Your task to perform on an android device: Set the phone to "Do not disturb". Image 0: 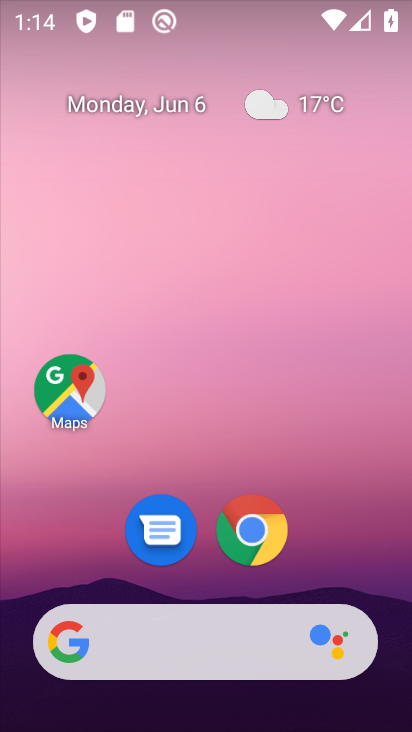
Step 0: drag from (341, 546) to (256, 138)
Your task to perform on an android device: Set the phone to "Do not disturb". Image 1: 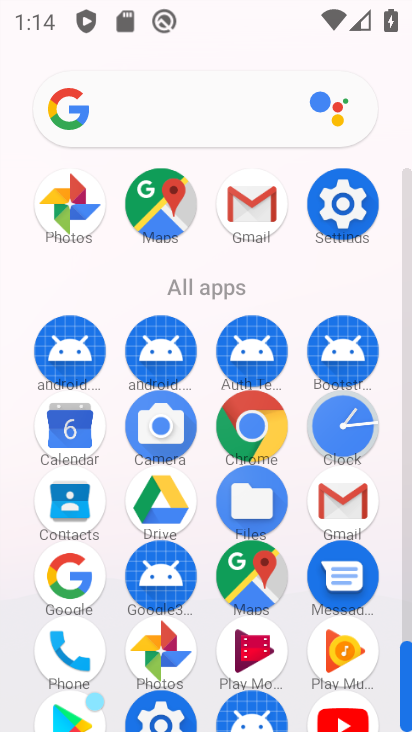
Step 1: click (344, 204)
Your task to perform on an android device: Set the phone to "Do not disturb". Image 2: 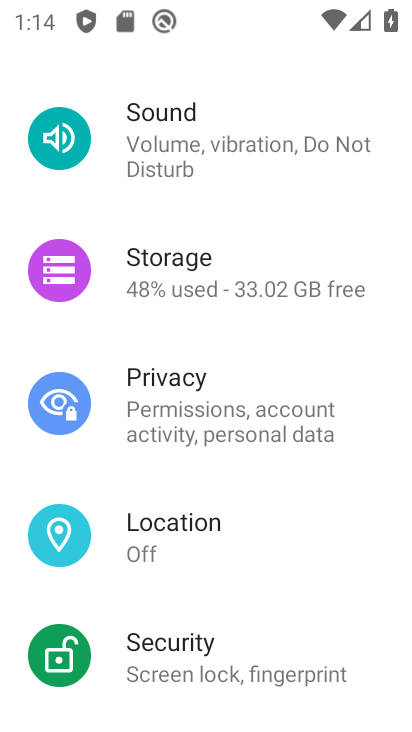
Step 2: click (279, 151)
Your task to perform on an android device: Set the phone to "Do not disturb". Image 3: 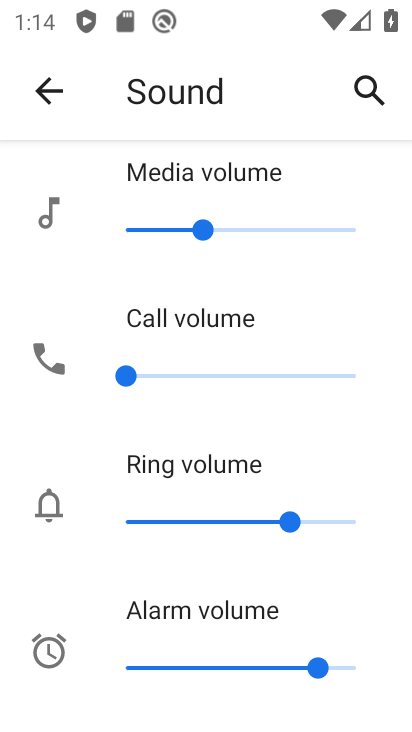
Step 3: drag from (188, 560) to (202, 372)
Your task to perform on an android device: Set the phone to "Do not disturb". Image 4: 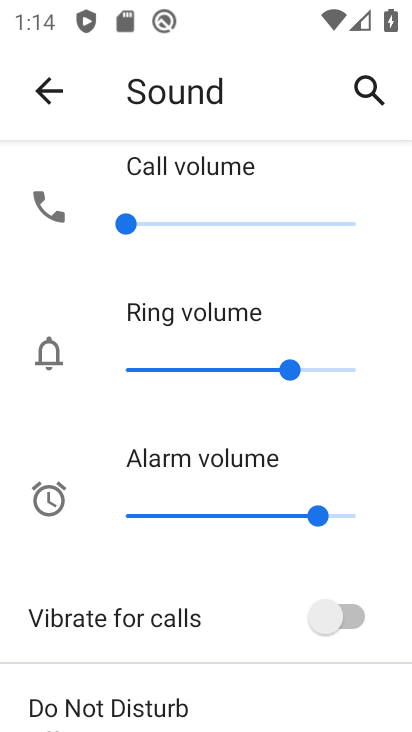
Step 4: drag from (195, 556) to (202, 404)
Your task to perform on an android device: Set the phone to "Do not disturb". Image 5: 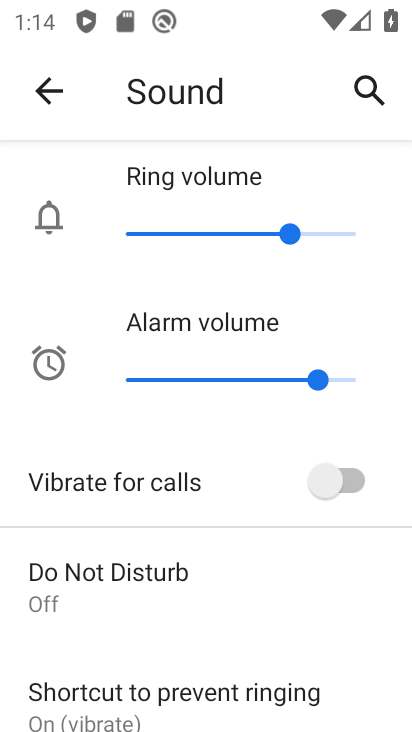
Step 5: drag from (227, 658) to (253, 531)
Your task to perform on an android device: Set the phone to "Do not disturb". Image 6: 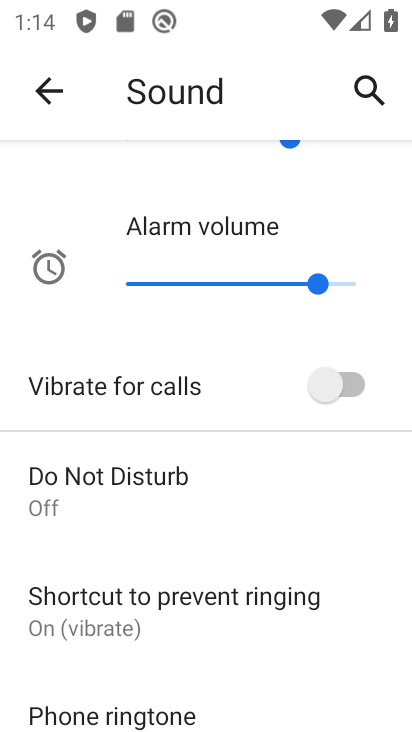
Step 6: click (197, 488)
Your task to perform on an android device: Set the phone to "Do not disturb". Image 7: 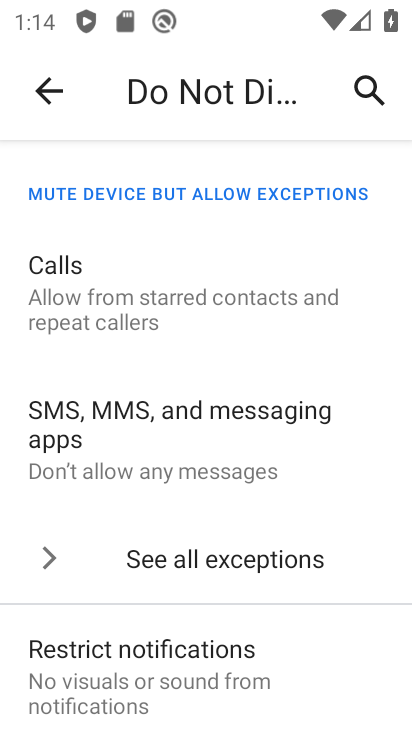
Step 7: drag from (199, 519) to (135, 284)
Your task to perform on an android device: Set the phone to "Do not disturb". Image 8: 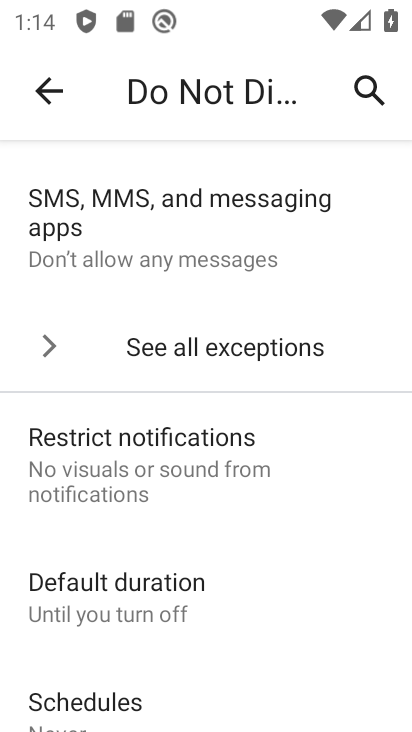
Step 8: drag from (149, 540) to (194, 279)
Your task to perform on an android device: Set the phone to "Do not disturb". Image 9: 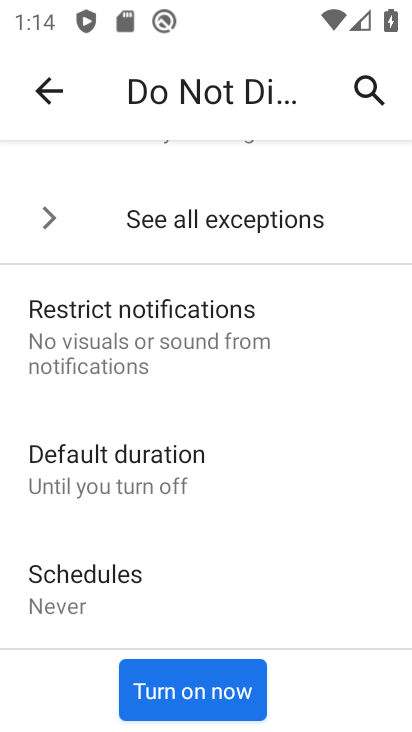
Step 9: click (207, 679)
Your task to perform on an android device: Set the phone to "Do not disturb". Image 10: 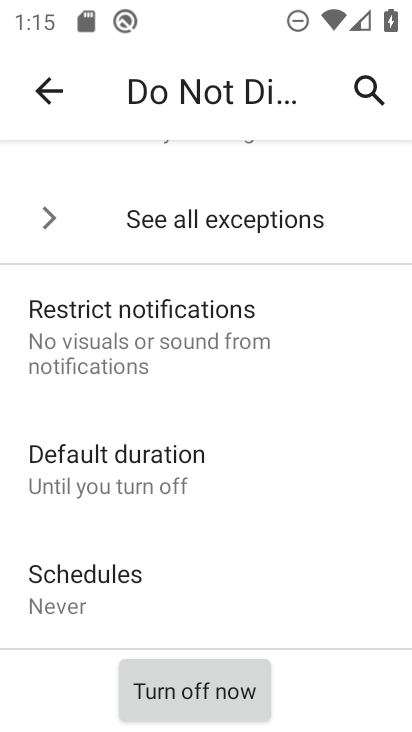
Step 10: task complete